Your task to perform on an android device: choose inbox layout in the gmail app Image 0: 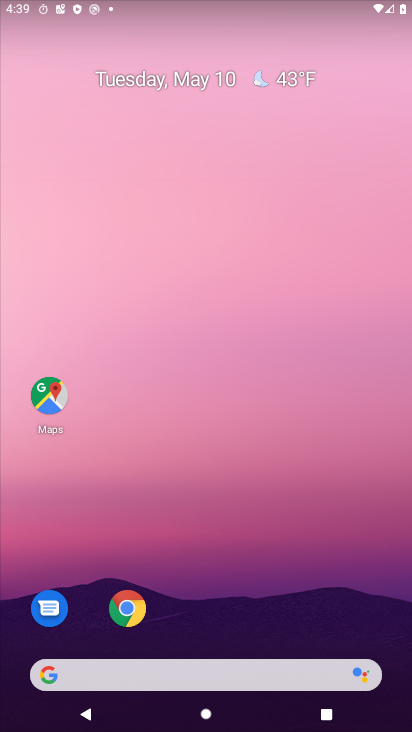
Step 0: drag from (301, 699) to (145, 73)
Your task to perform on an android device: choose inbox layout in the gmail app Image 1: 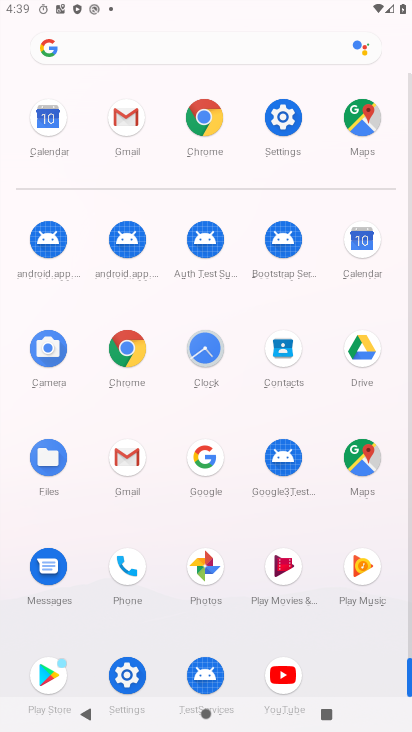
Step 1: drag from (288, 543) to (177, 65)
Your task to perform on an android device: choose inbox layout in the gmail app Image 2: 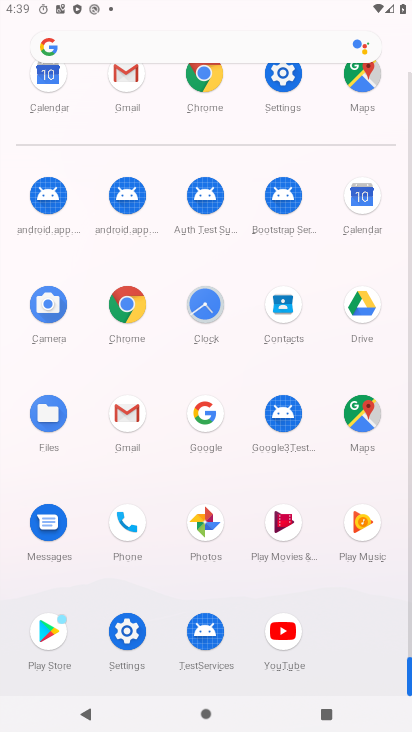
Step 2: click (133, 407)
Your task to perform on an android device: choose inbox layout in the gmail app Image 3: 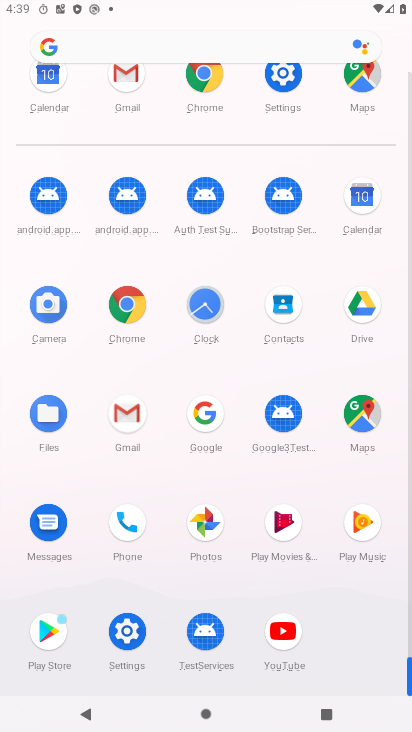
Step 3: click (129, 407)
Your task to perform on an android device: choose inbox layout in the gmail app Image 4: 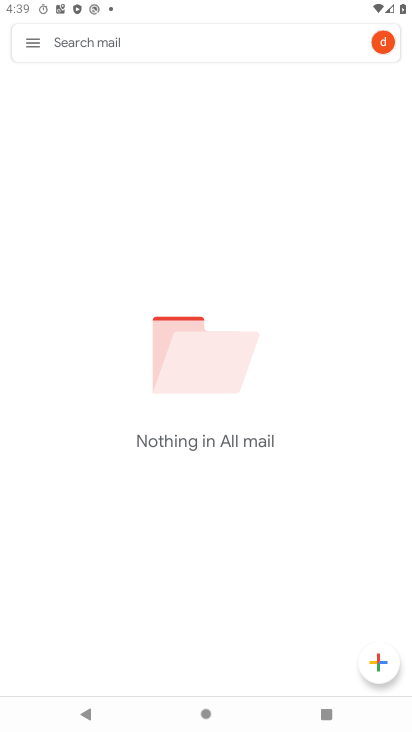
Step 4: drag from (26, 44) to (36, 193)
Your task to perform on an android device: choose inbox layout in the gmail app Image 5: 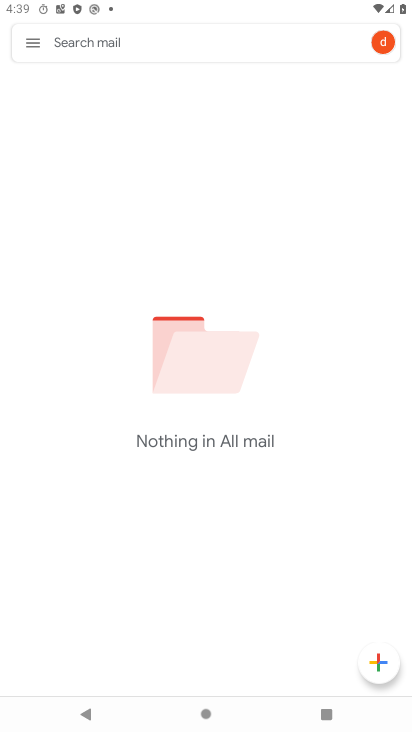
Step 5: click (32, 39)
Your task to perform on an android device: choose inbox layout in the gmail app Image 6: 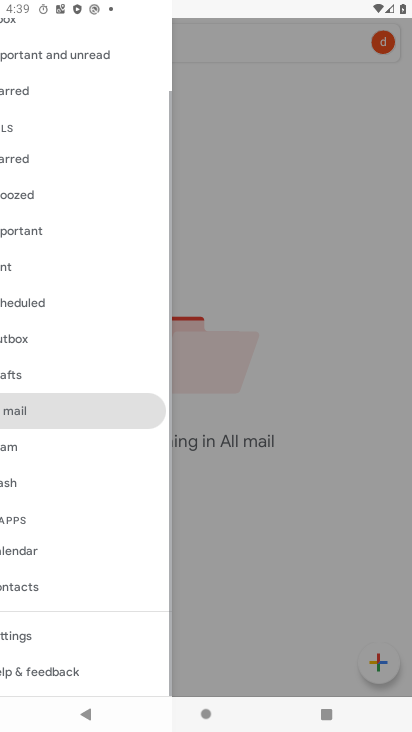
Step 6: click (32, 41)
Your task to perform on an android device: choose inbox layout in the gmail app Image 7: 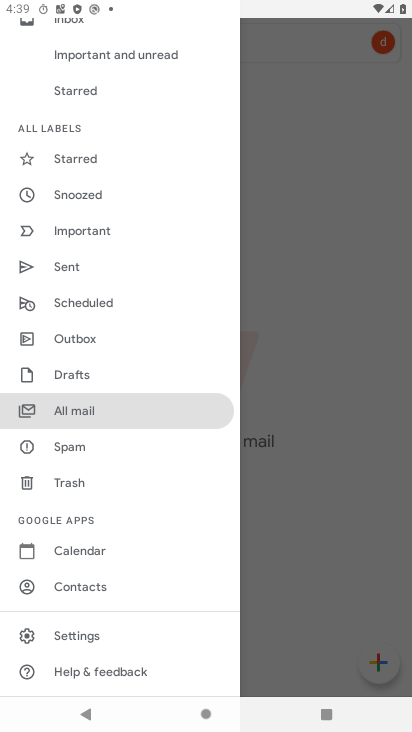
Step 7: click (81, 409)
Your task to perform on an android device: choose inbox layout in the gmail app Image 8: 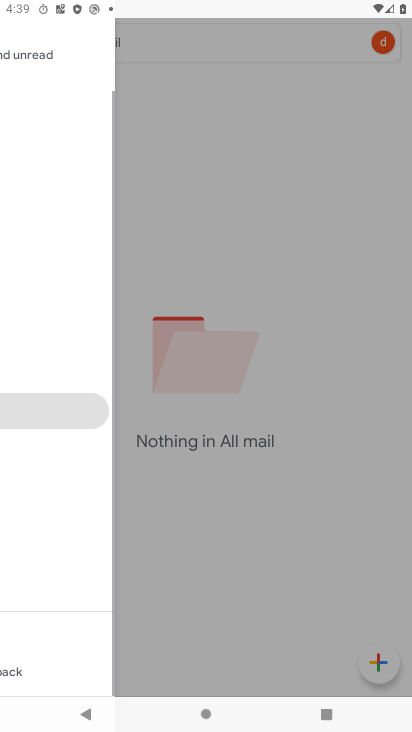
Step 8: click (80, 408)
Your task to perform on an android device: choose inbox layout in the gmail app Image 9: 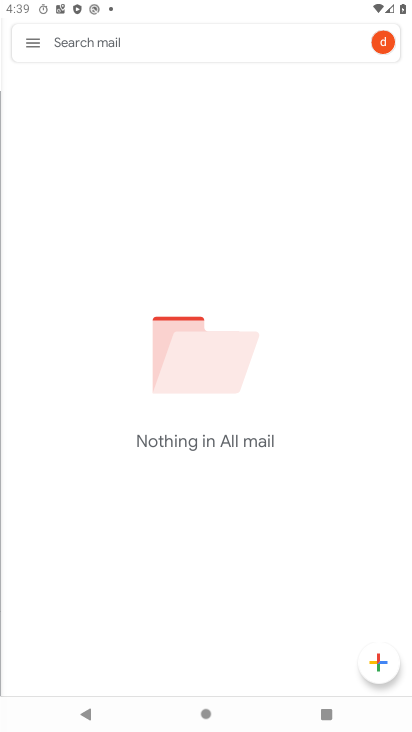
Step 9: click (78, 409)
Your task to perform on an android device: choose inbox layout in the gmail app Image 10: 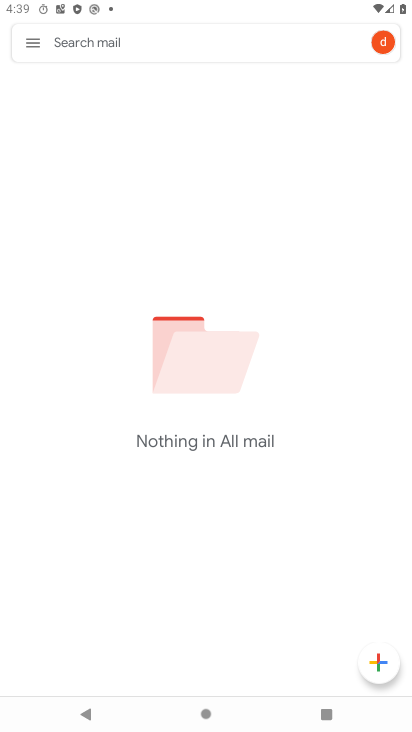
Step 10: task complete